Your task to perform on an android device: open wifi settings Image 0: 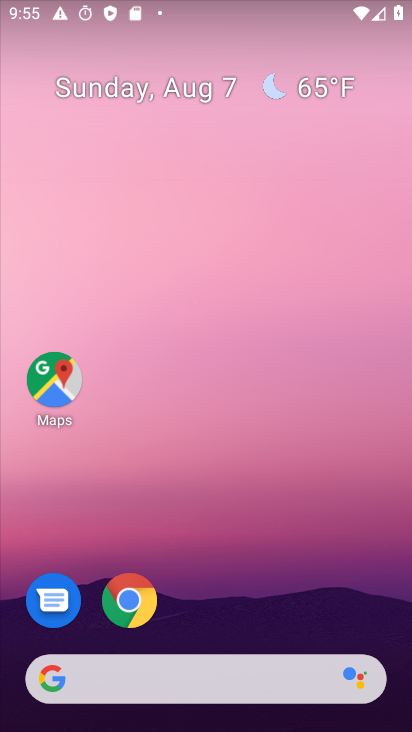
Step 0: drag from (197, 604) to (288, 138)
Your task to perform on an android device: open wifi settings Image 1: 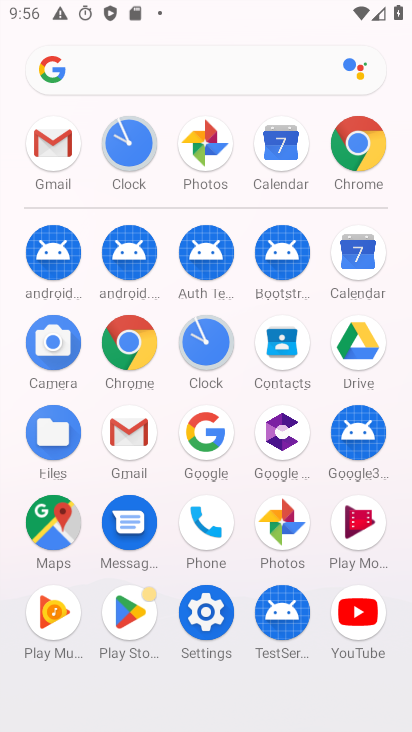
Step 1: click (196, 622)
Your task to perform on an android device: open wifi settings Image 2: 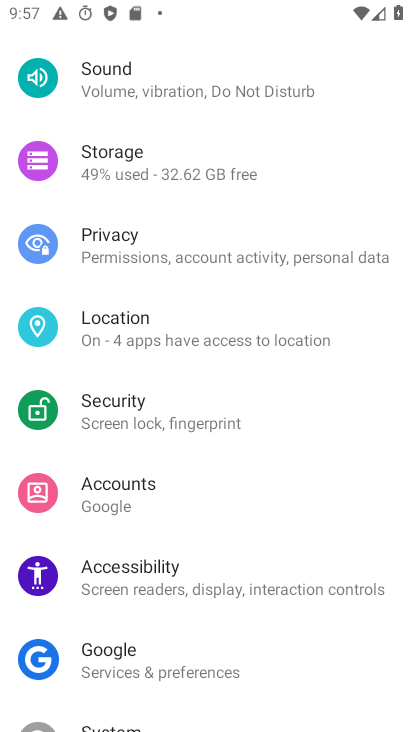
Step 2: drag from (239, 263) to (181, 716)
Your task to perform on an android device: open wifi settings Image 3: 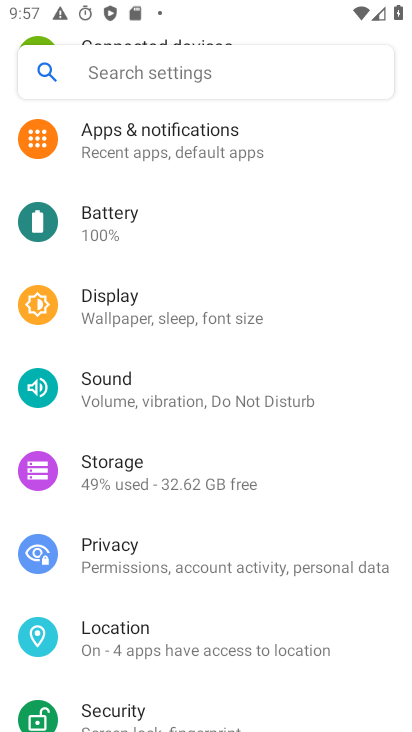
Step 3: drag from (182, 265) to (139, 687)
Your task to perform on an android device: open wifi settings Image 4: 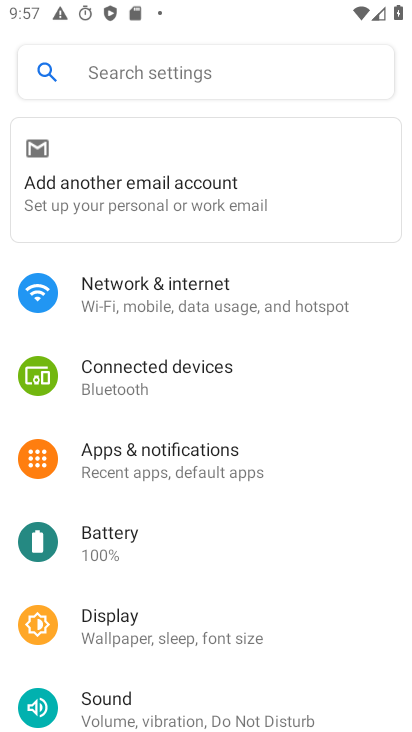
Step 4: click (211, 287)
Your task to perform on an android device: open wifi settings Image 5: 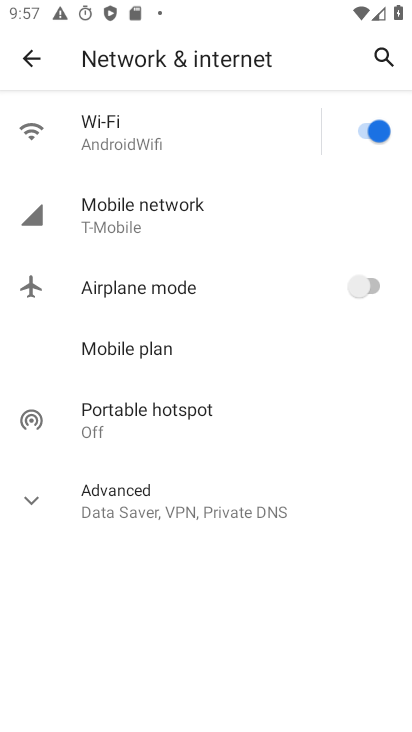
Step 5: click (132, 127)
Your task to perform on an android device: open wifi settings Image 6: 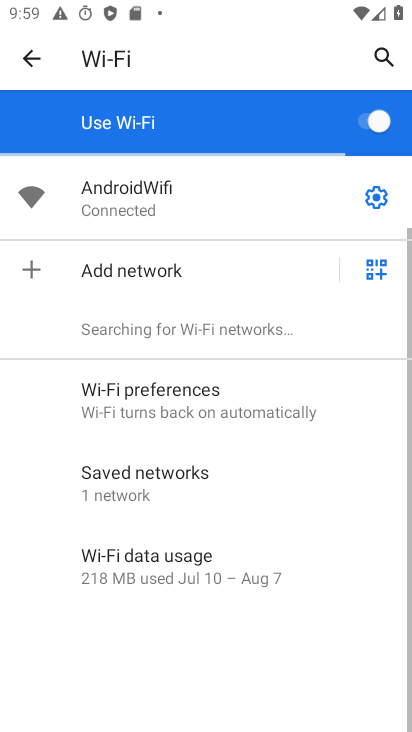
Step 6: task complete